Your task to perform on an android device: Go to Maps Image 0: 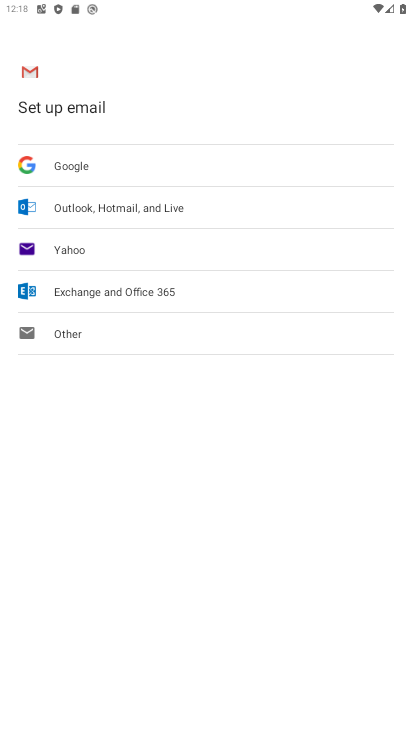
Step 0: press back button
Your task to perform on an android device: Go to Maps Image 1: 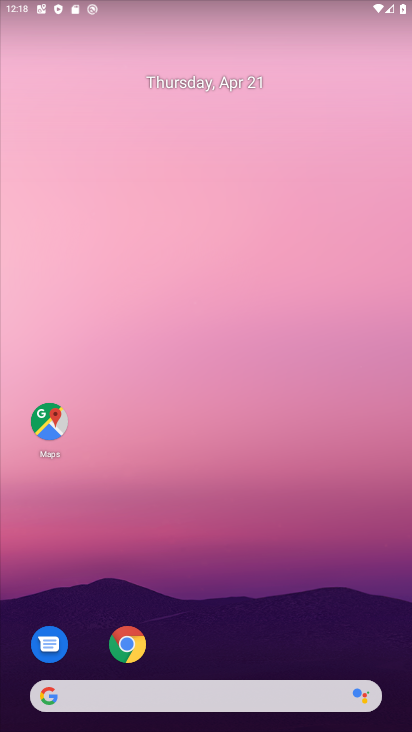
Step 1: click (41, 427)
Your task to perform on an android device: Go to Maps Image 2: 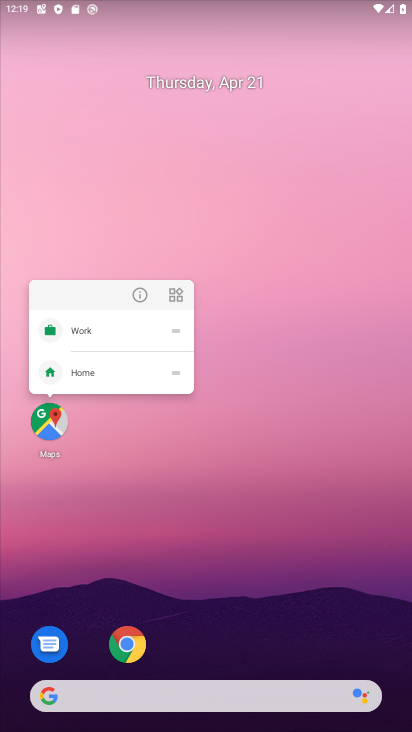
Step 2: click (45, 412)
Your task to perform on an android device: Go to Maps Image 3: 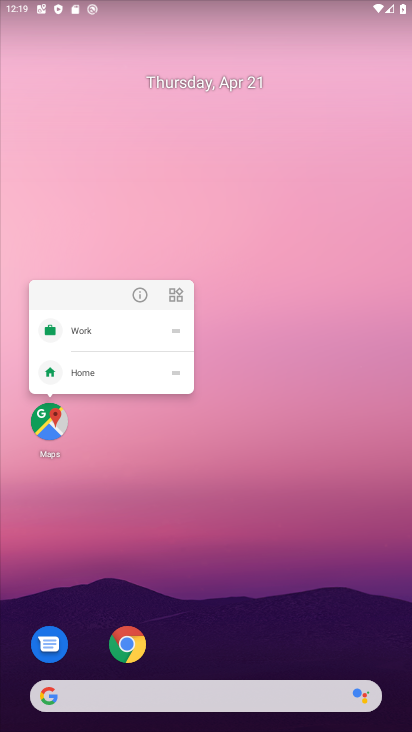
Step 3: click (47, 415)
Your task to perform on an android device: Go to Maps Image 4: 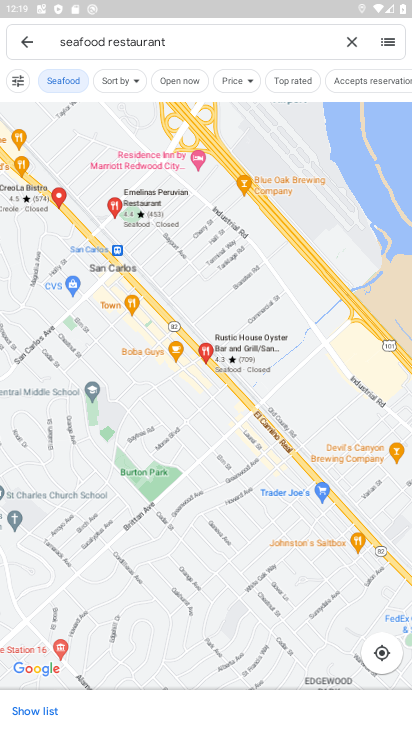
Step 4: task complete